Your task to perform on an android device: What's the weather going to be tomorrow? Image 0: 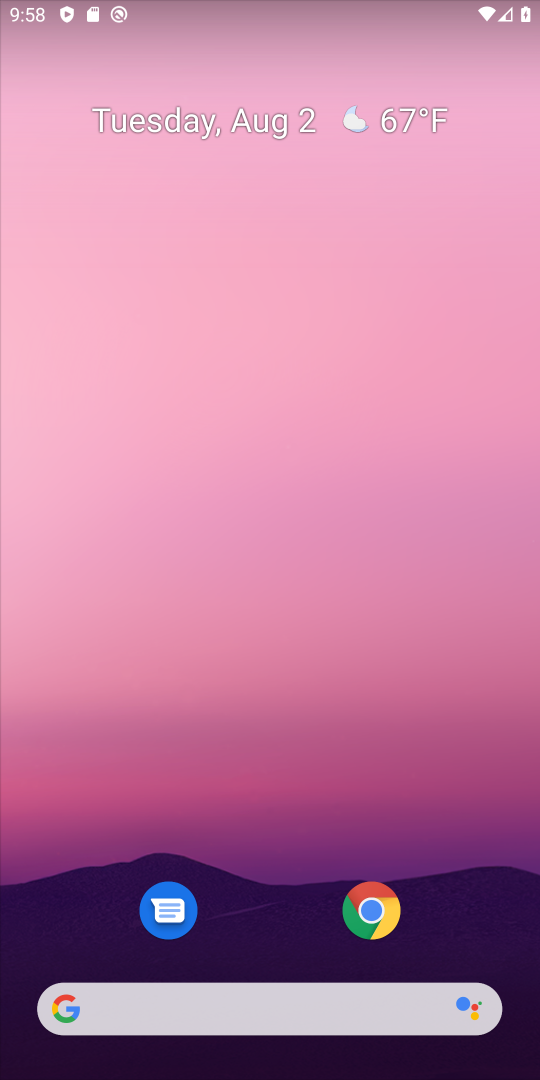
Step 0: drag from (270, 882) to (292, 428)
Your task to perform on an android device: What's the weather going to be tomorrow? Image 1: 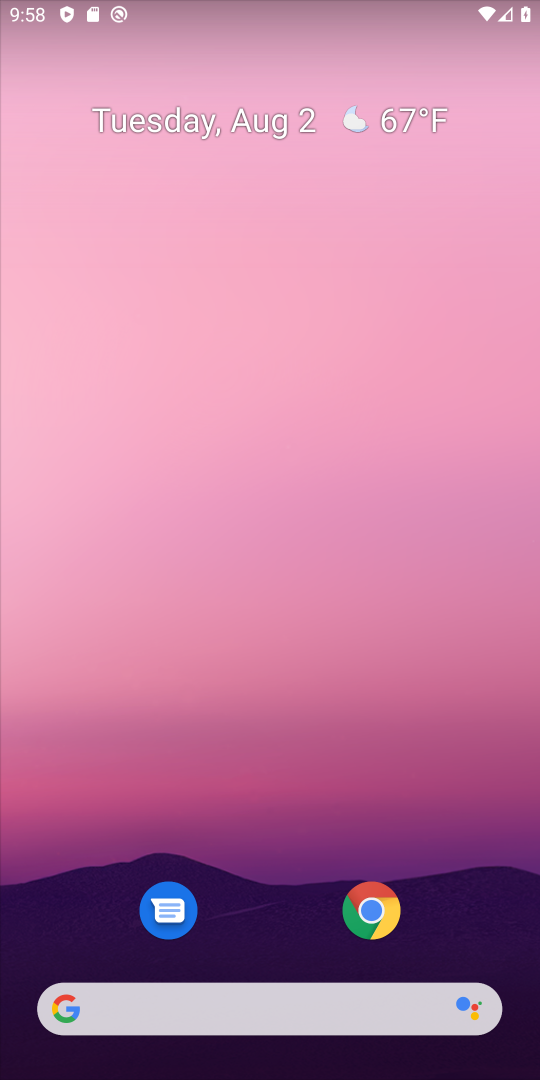
Step 1: drag from (278, 890) to (291, 367)
Your task to perform on an android device: What's the weather going to be tomorrow? Image 2: 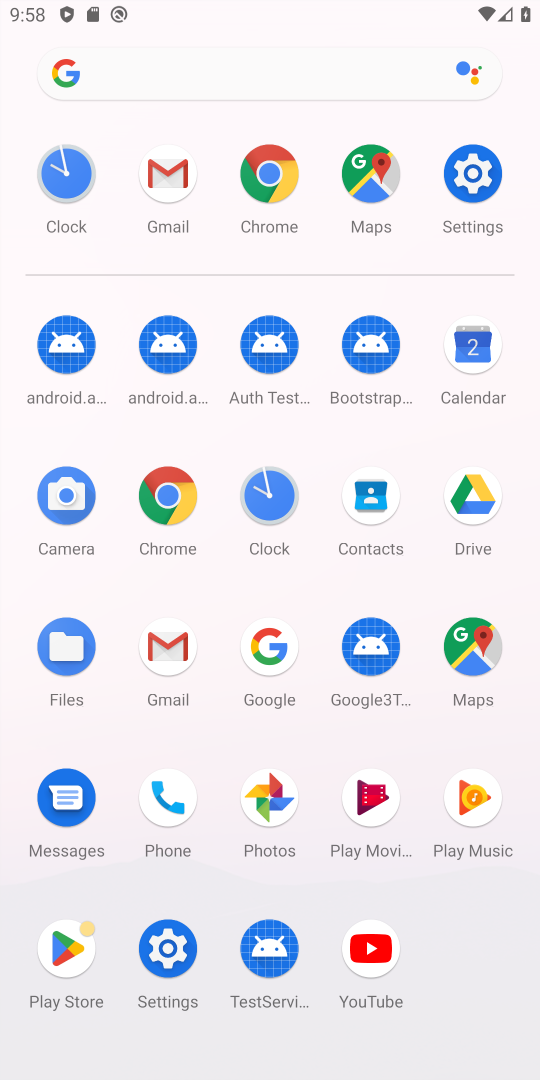
Step 2: click (177, 496)
Your task to perform on an android device: What's the weather going to be tomorrow? Image 3: 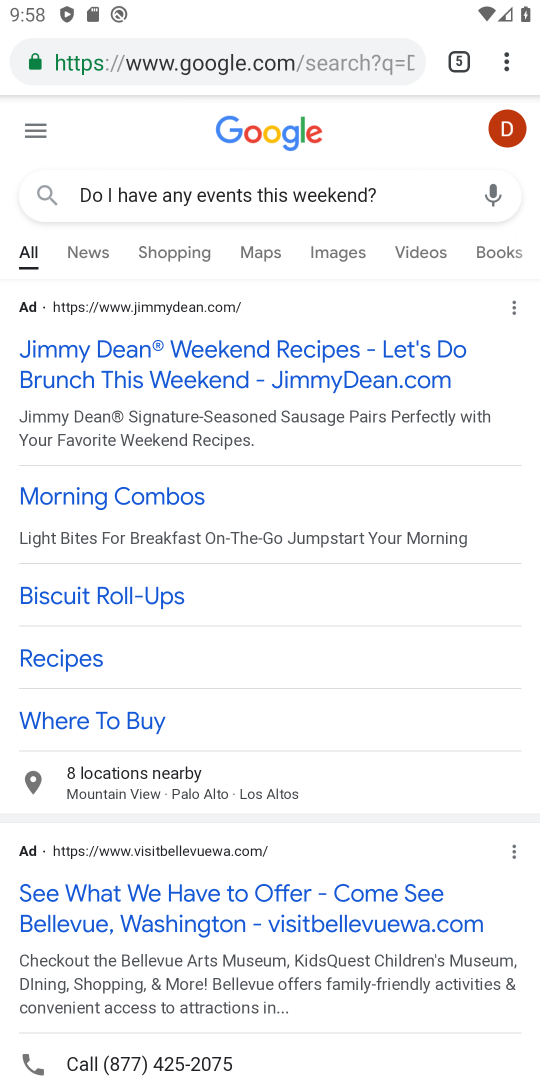
Step 3: click (503, 61)
Your task to perform on an android device: What's the weather going to be tomorrow? Image 4: 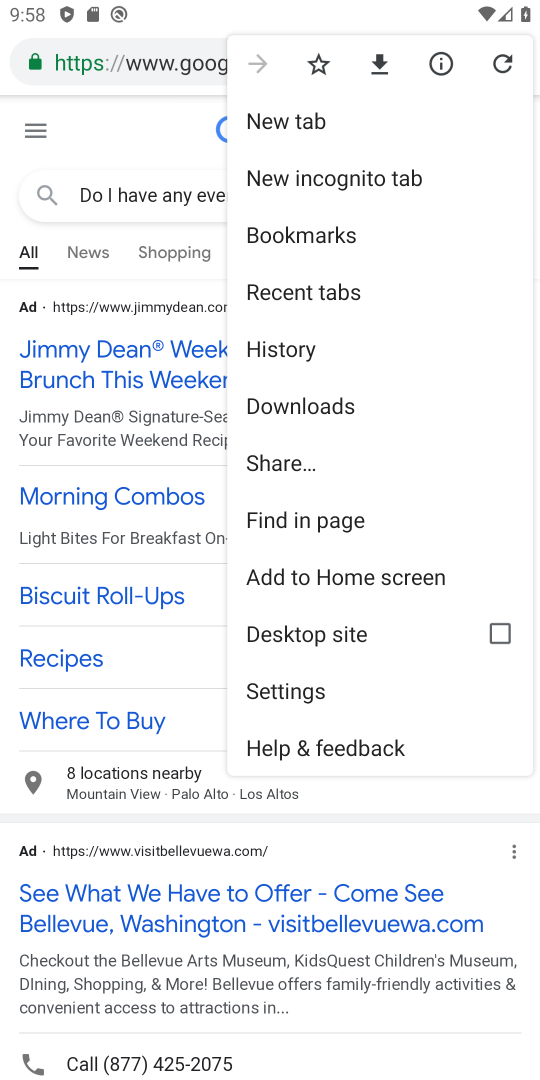
Step 4: click (342, 132)
Your task to perform on an android device: What's the weather going to be tomorrow? Image 5: 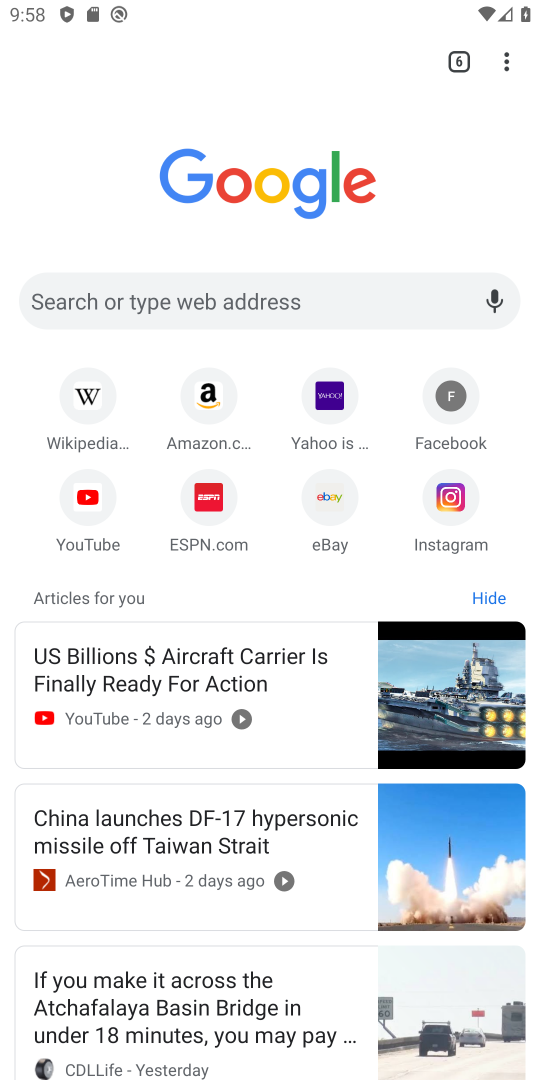
Step 5: click (393, 291)
Your task to perform on an android device: What's the weather going to be tomorrow? Image 6: 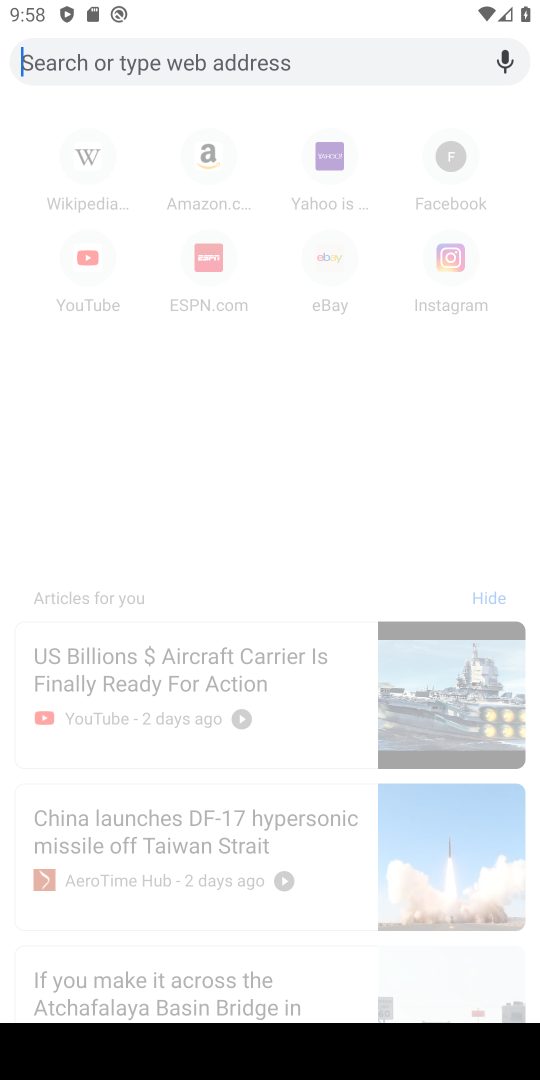
Step 6: type "What's the weather going to be tomorrow? "
Your task to perform on an android device: What's the weather going to be tomorrow? Image 7: 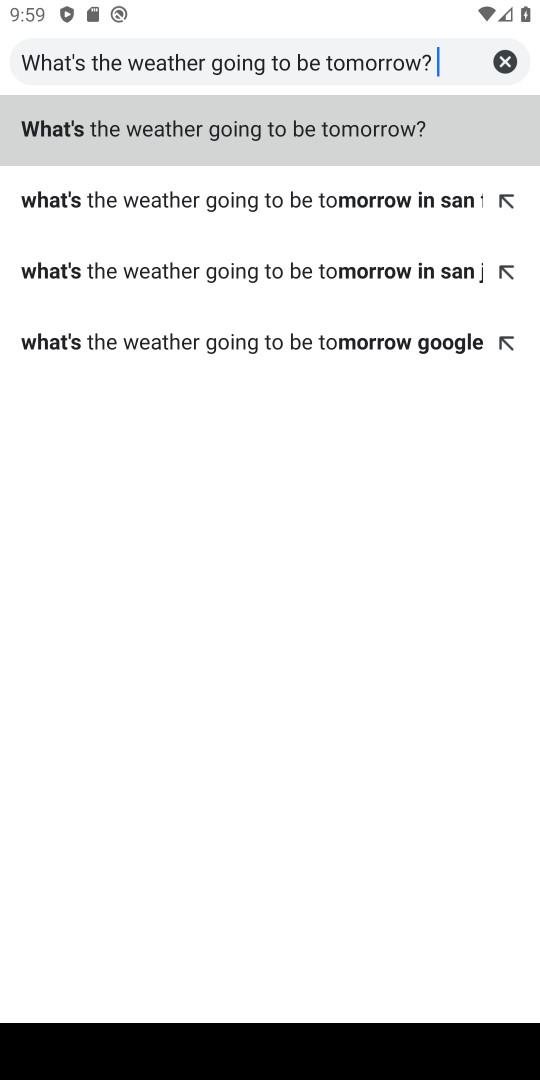
Step 7: click (223, 132)
Your task to perform on an android device: What's the weather going to be tomorrow? Image 8: 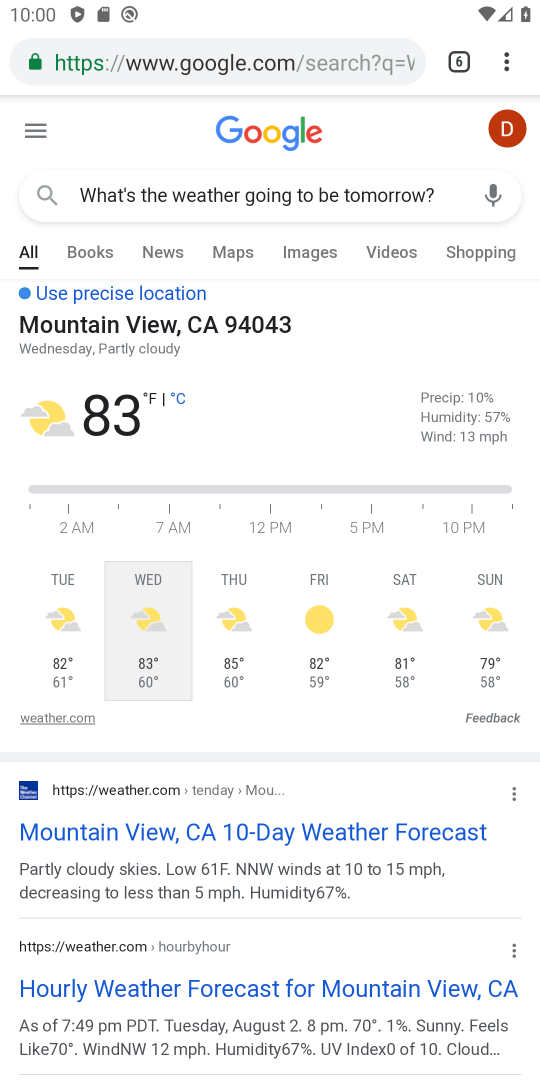
Step 8: task complete